Your task to perform on an android device: turn on translation in the chrome app Image 0: 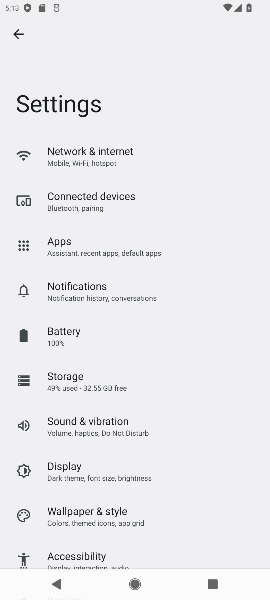
Step 0: press home button
Your task to perform on an android device: turn on translation in the chrome app Image 1: 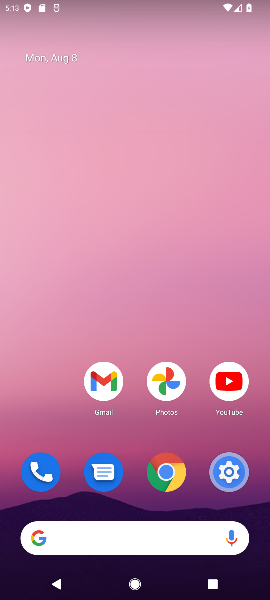
Step 1: click (166, 477)
Your task to perform on an android device: turn on translation in the chrome app Image 2: 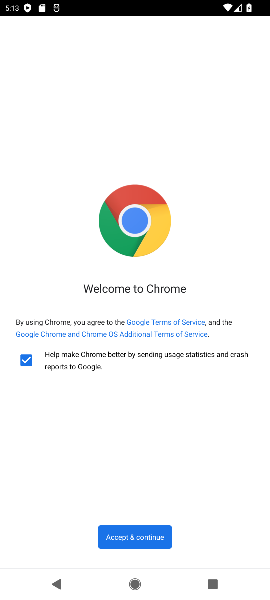
Step 2: click (115, 543)
Your task to perform on an android device: turn on translation in the chrome app Image 3: 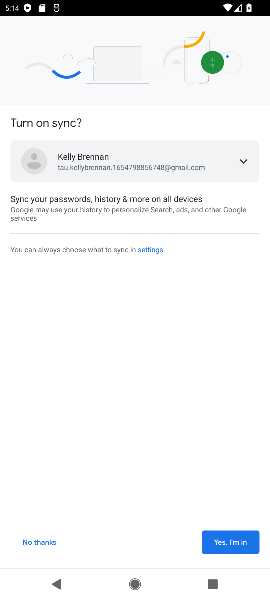
Step 3: click (224, 541)
Your task to perform on an android device: turn on translation in the chrome app Image 4: 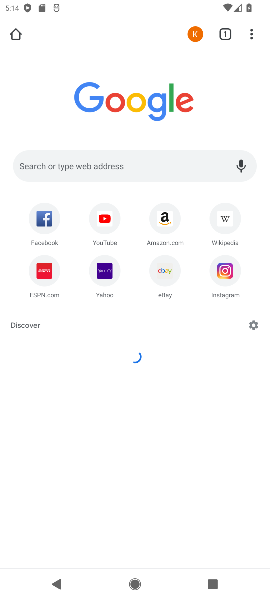
Step 4: drag from (252, 30) to (155, 302)
Your task to perform on an android device: turn on translation in the chrome app Image 5: 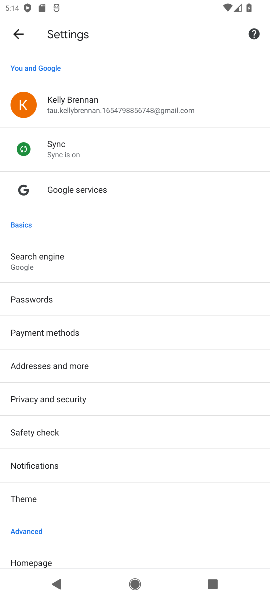
Step 5: drag from (101, 530) to (144, 142)
Your task to perform on an android device: turn on translation in the chrome app Image 6: 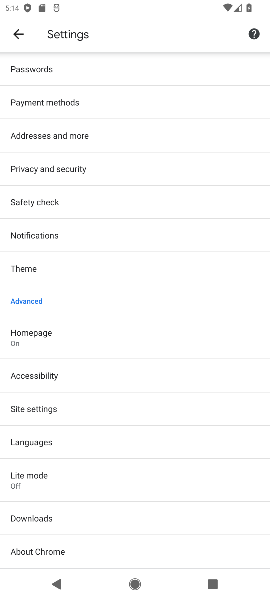
Step 6: click (229, 448)
Your task to perform on an android device: turn on translation in the chrome app Image 7: 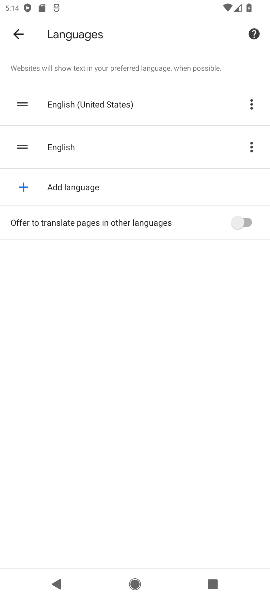
Step 7: click (235, 216)
Your task to perform on an android device: turn on translation in the chrome app Image 8: 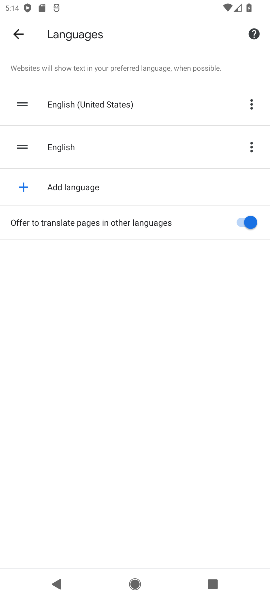
Step 8: task complete